Your task to perform on an android device: turn off sleep mode Image 0: 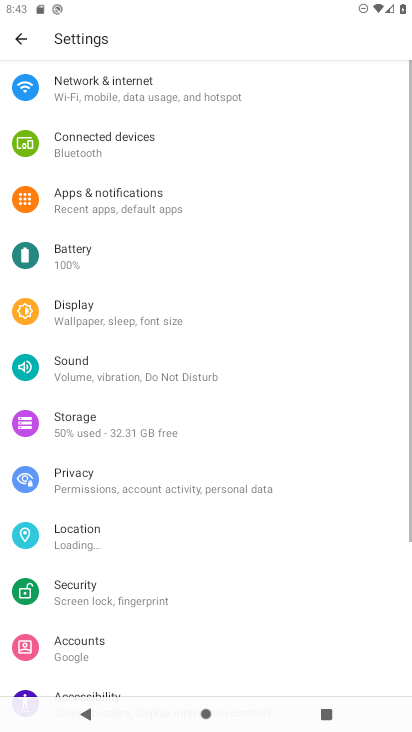
Step 0: press home button
Your task to perform on an android device: turn off sleep mode Image 1: 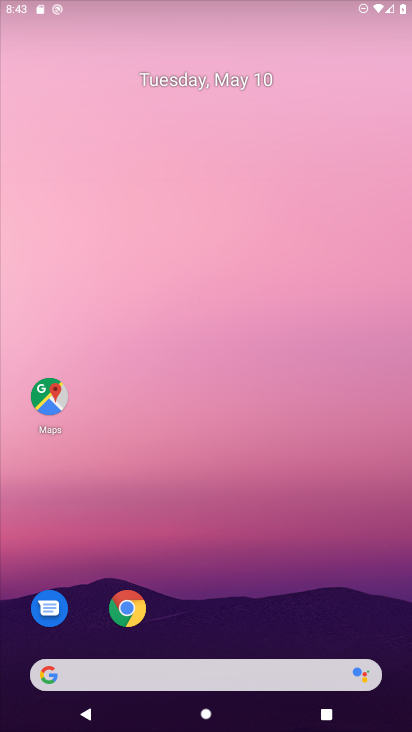
Step 1: drag from (371, 603) to (238, 5)
Your task to perform on an android device: turn off sleep mode Image 2: 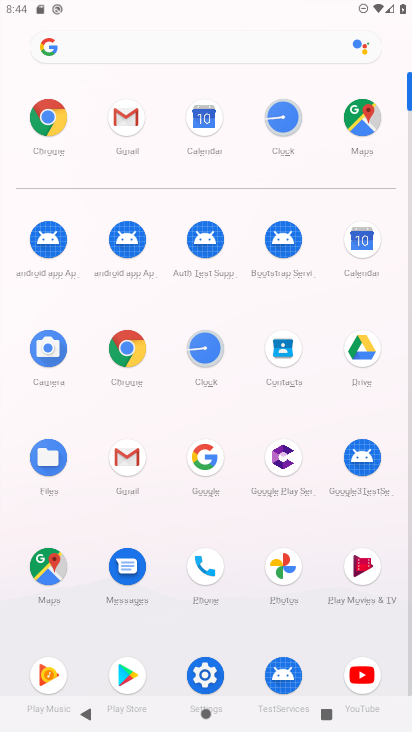
Step 2: click (206, 699)
Your task to perform on an android device: turn off sleep mode Image 3: 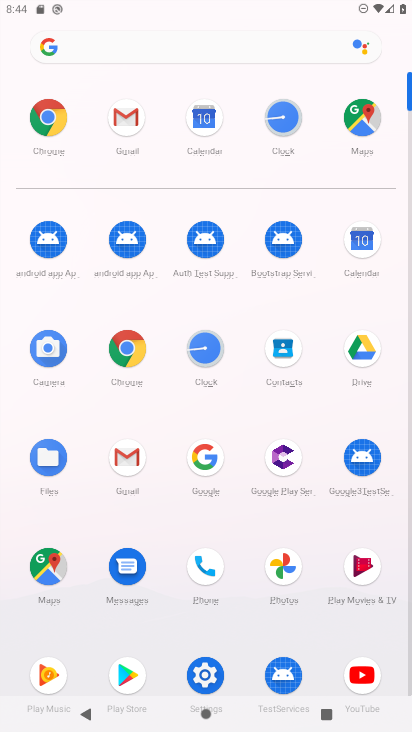
Step 3: click (207, 673)
Your task to perform on an android device: turn off sleep mode Image 4: 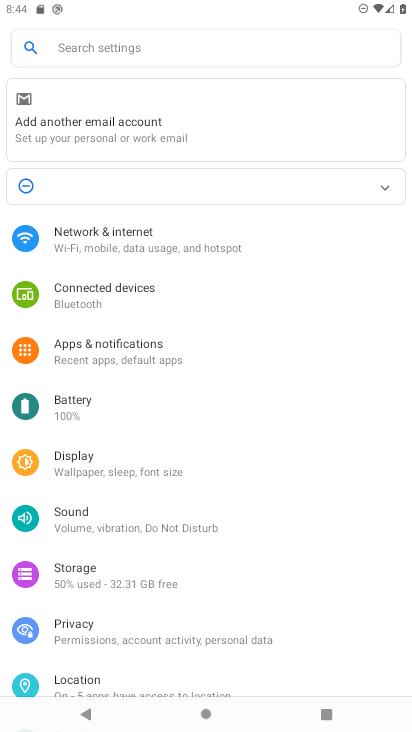
Step 4: task complete